Your task to perform on an android device: delete browsing data in the chrome app Image 0: 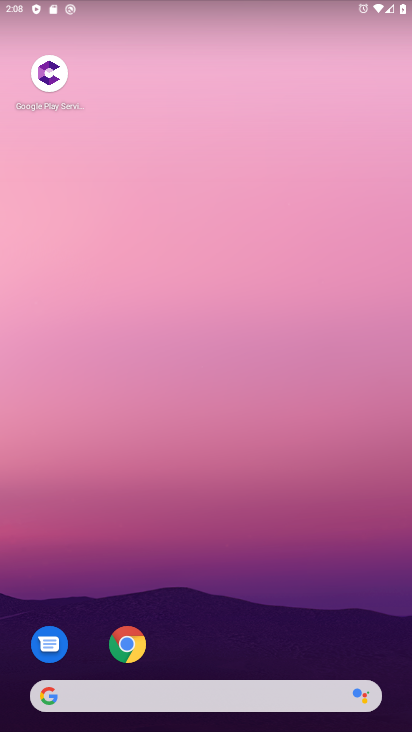
Step 0: click (122, 636)
Your task to perform on an android device: delete browsing data in the chrome app Image 1: 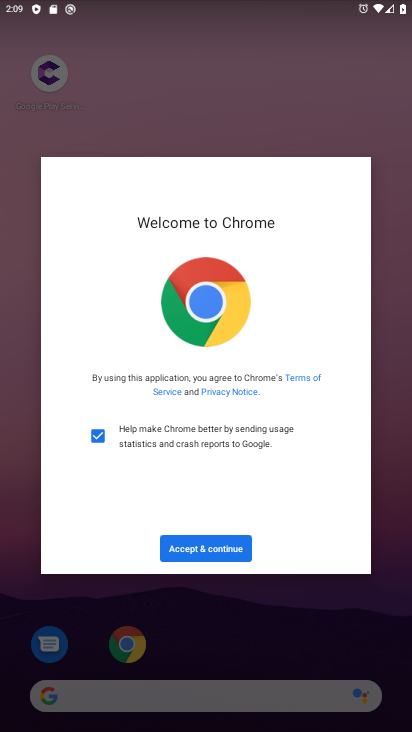
Step 1: click (226, 544)
Your task to perform on an android device: delete browsing data in the chrome app Image 2: 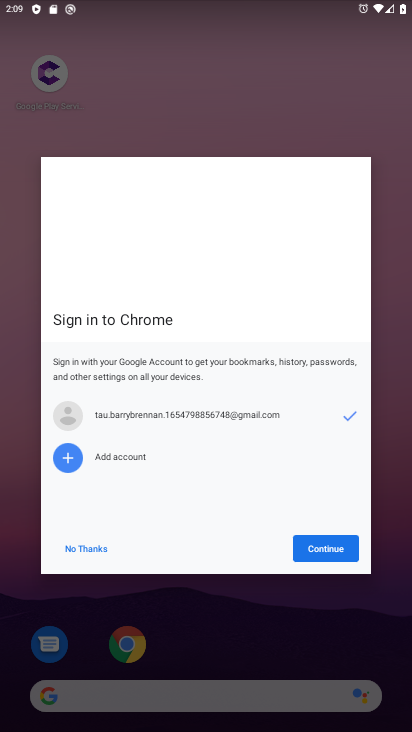
Step 2: click (344, 545)
Your task to perform on an android device: delete browsing data in the chrome app Image 3: 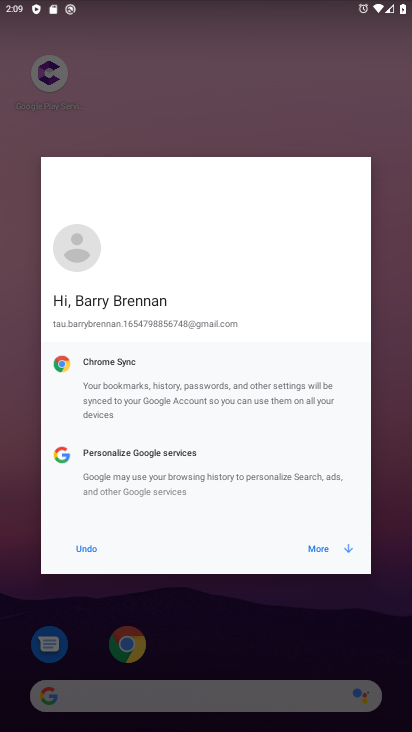
Step 3: click (328, 549)
Your task to perform on an android device: delete browsing data in the chrome app Image 4: 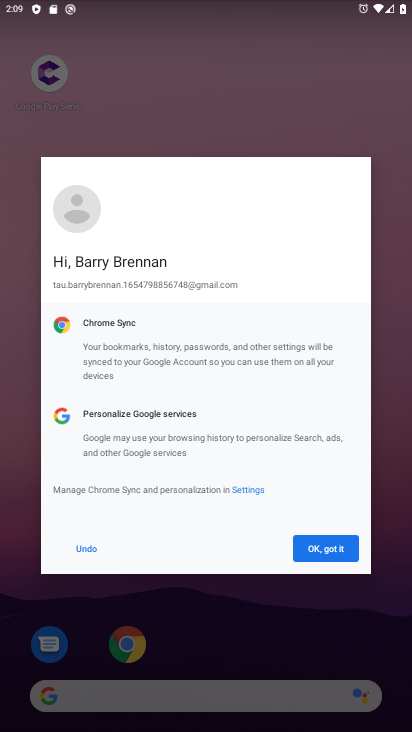
Step 4: click (328, 549)
Your task to perform on an android device: delete browsing data in the chrome app Image 5: 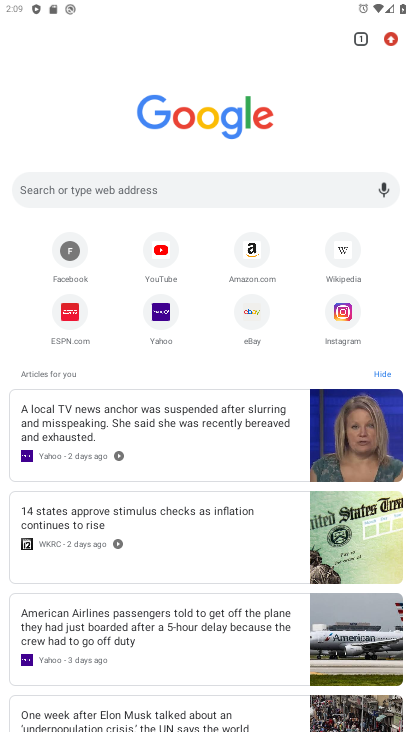
Step 5: click (389, 33)
Your task to perform on an android device: delete browsing data in the chrome app Image 6: 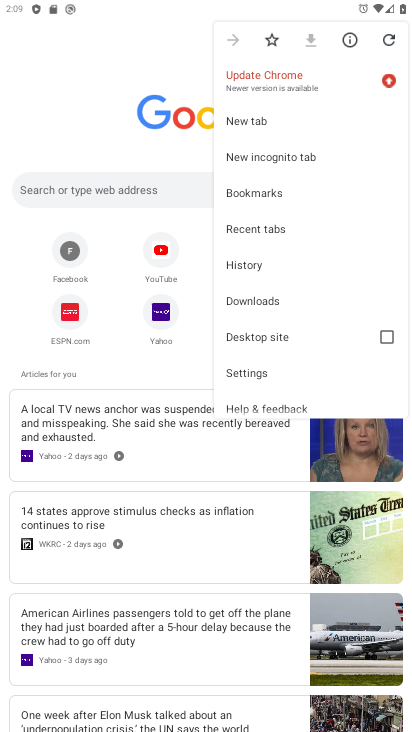
Step 6: click (257, 265)
Your task to perform on an android device: delete browsing data in the chrome app Image 7: 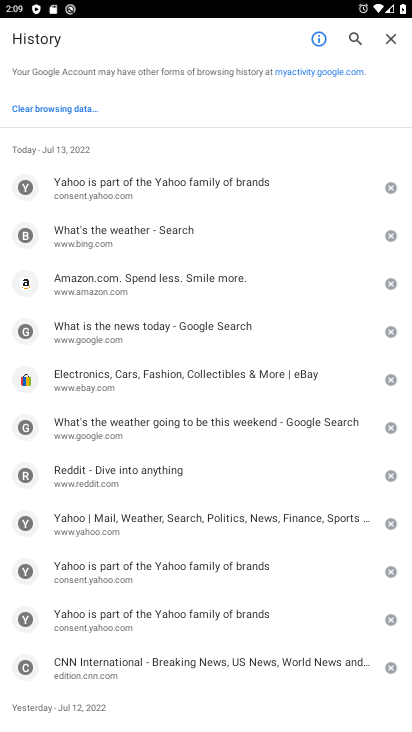
Step 7: click (72, 106)
Your task to perform on an android device: delete browsing data in the chrome app Image 8: 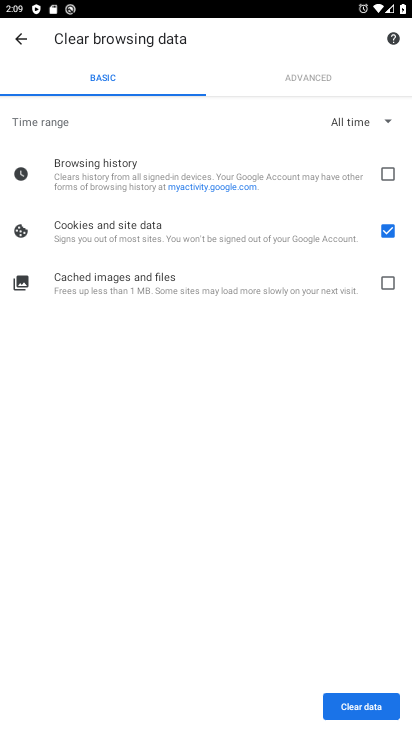
Step 8: click (385, 706)
Your task to perform on an android device: delete browsing data in the chrome app Image 9: 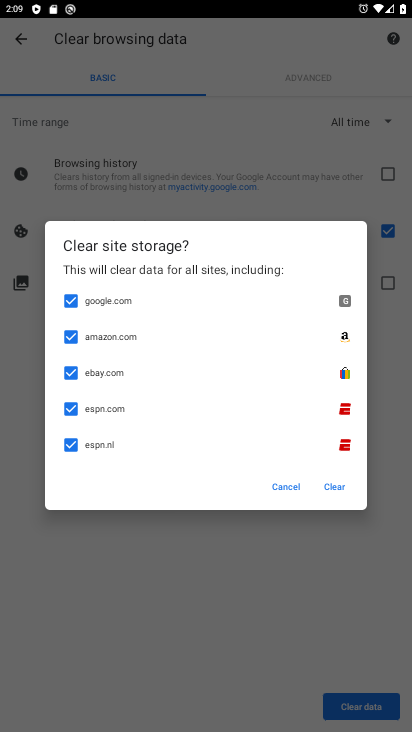
Step 9: click (342, 482)
Your task to perform on an android device: delete browsing data in the chrome app Image 10: 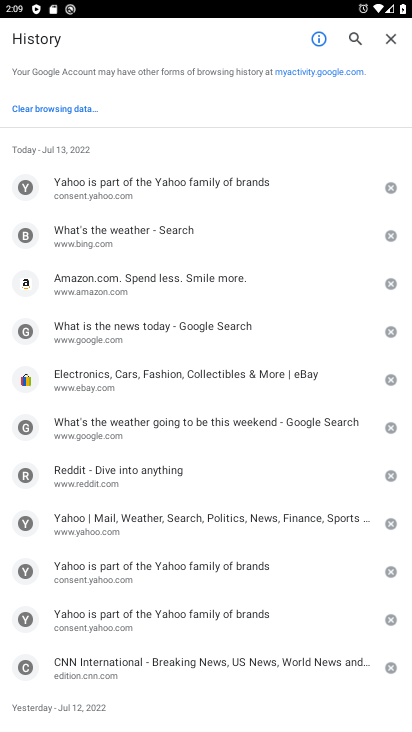
Step 10: task complete